Your task to perform on an android device: Go to notification settings Image 0: 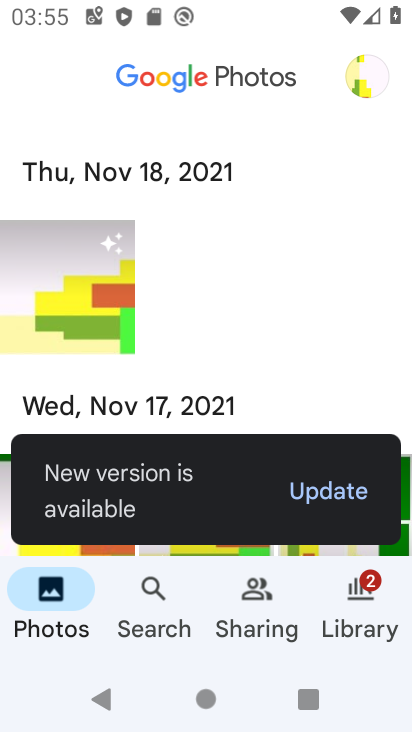
Step 0: press home button
Your task to perform on an android device: Go to notification settings Image 1: 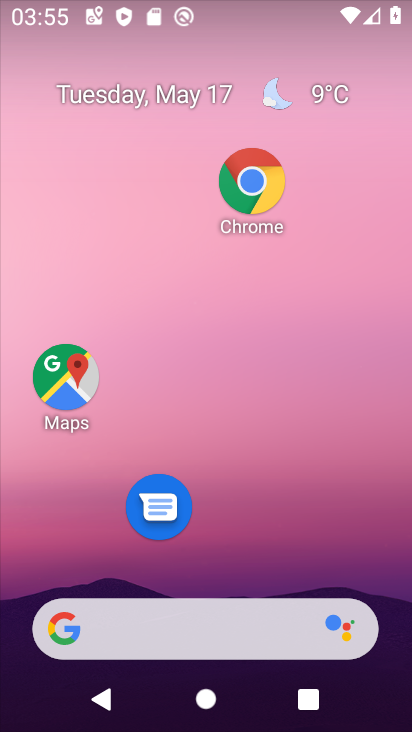
Step 1: drag from (242, 486) to (183, 127)
Your task to perform on an android device: Go to notification settings Image 2: 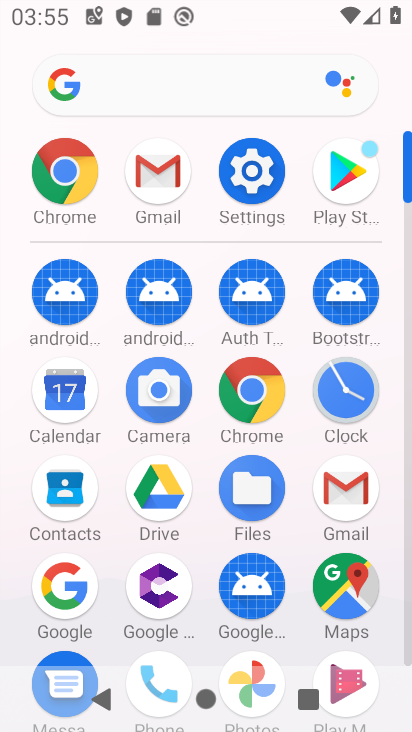
Step 2: click (261, 179)
Your task to perform on an android device: Go to notification settings Image 3: 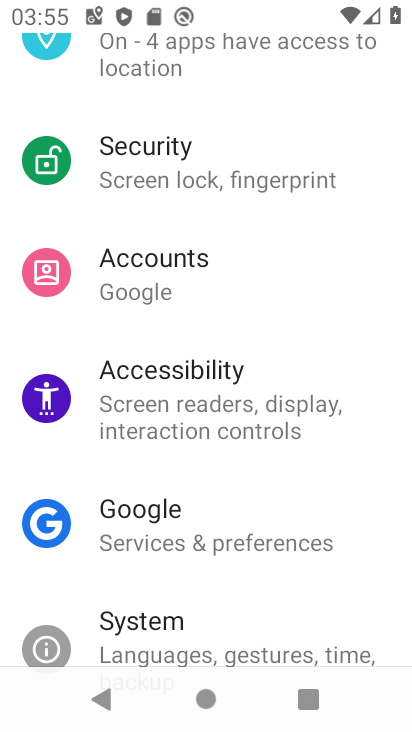
Step 3: drag from (203, 155) to (201, 641)
Your task to perform on an android device: Go to notification settings Image 4: 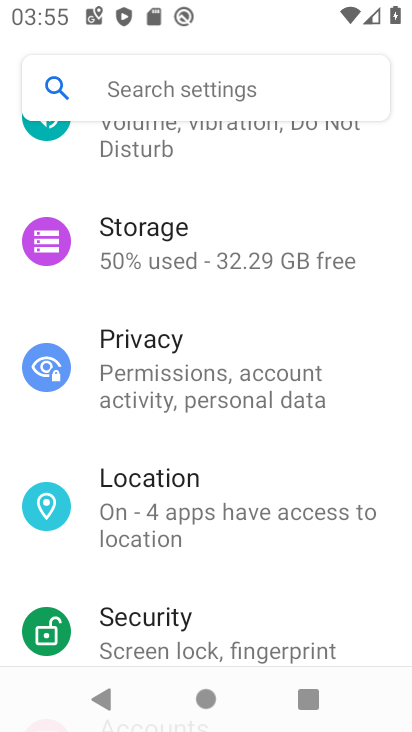
Step 4: drag from (180, 208) to (173, 663)
Your task to perform on an android device: Go to notification settings Image 5: 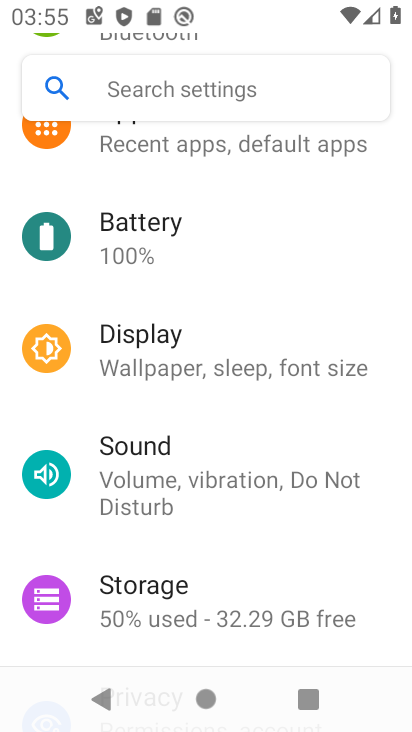
Step 5: drag from (193, 163) to (226, 552)
Your task to perform on an android device: Go to notification settings Image 6: 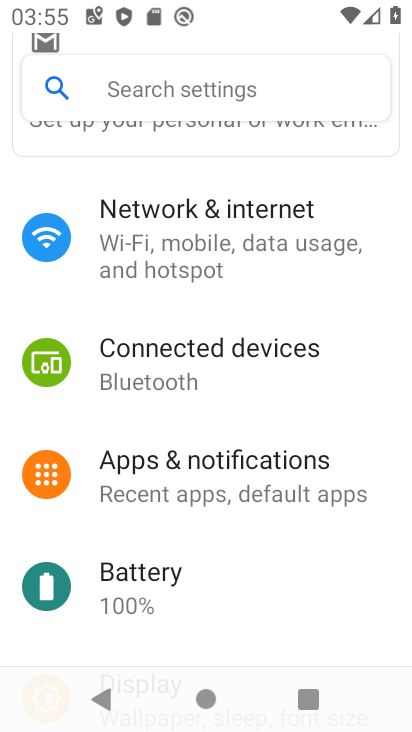
Step 6: click (200, 483)
Your task to perform on an android device: Go to notification settings Image 7: 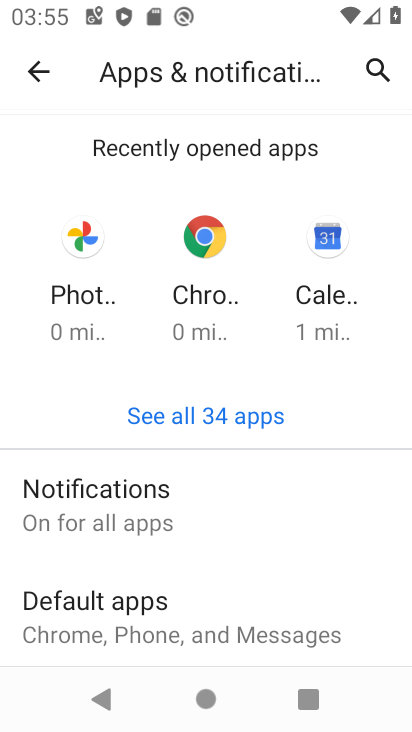
Step 7: task complete